Your task to perform on an android device: Go to network settings Image 0: 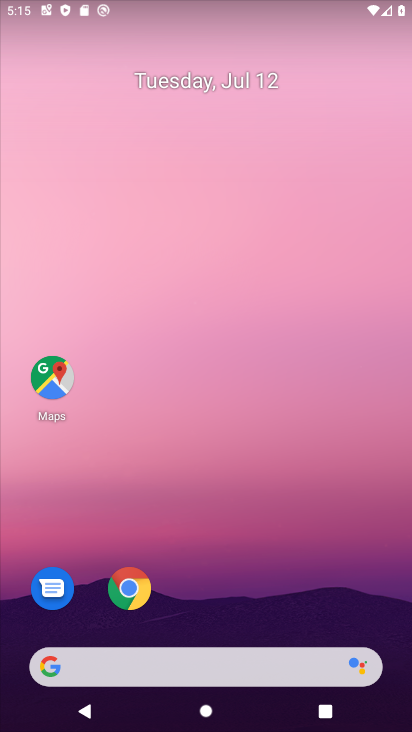
Step 0: drag from (205, 580) to (182, 139)
Your task to perform on an android device: Go to network settings Image 1: 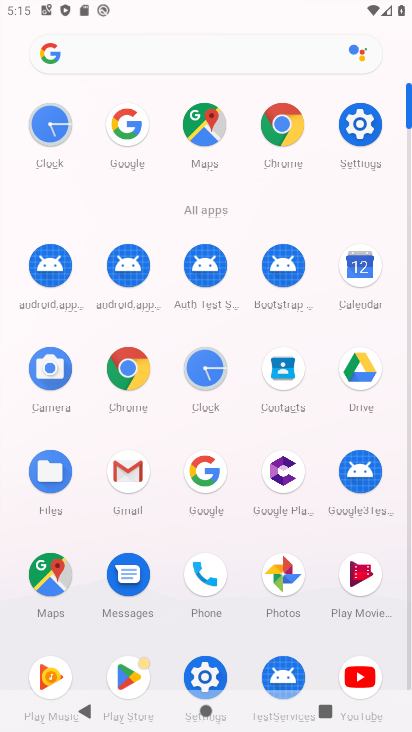
Step 1: click (384, 130)
Your task to perform on an android device: Go to network settings Image 2: 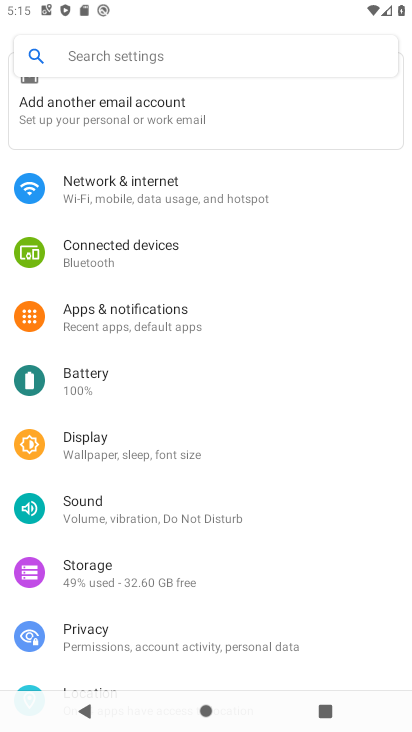
Step 2: click (131, 178)
Your task to perform on an android device: Go to network settings Image 3: 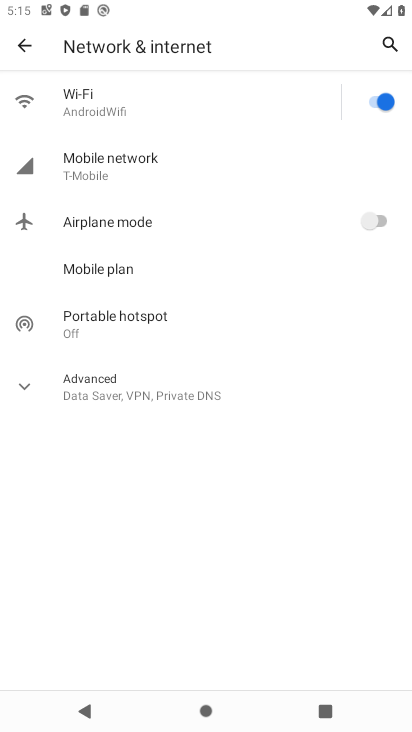
Step 3: click (126, 164)
Your task to perform on an android device: Go to network settings Image 4: 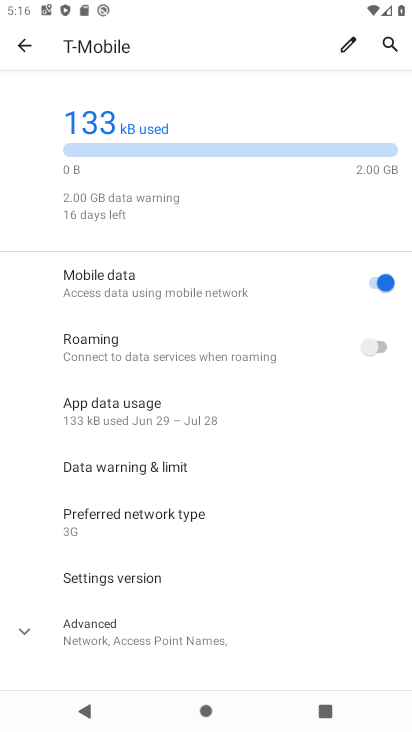
Step 4: task complete